Your task to perform on an android device: read, delete, or share a saved page in the chrome app Image 0: 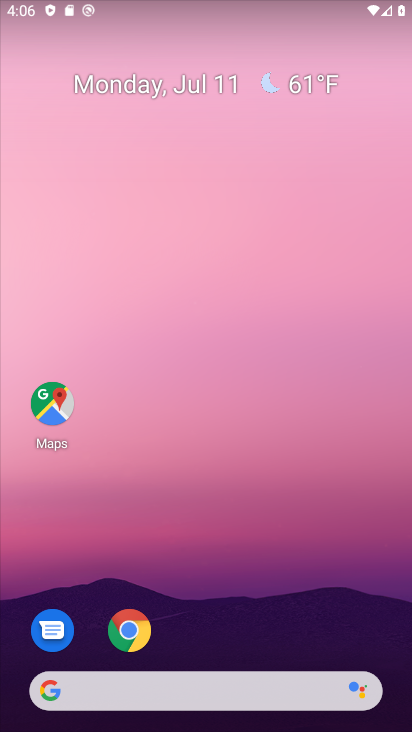
Step 0: drag from (290, 561) to (355, 0)
Your task to perform on an android device: read, delete, or share a saved page in the chrome app Image 1: 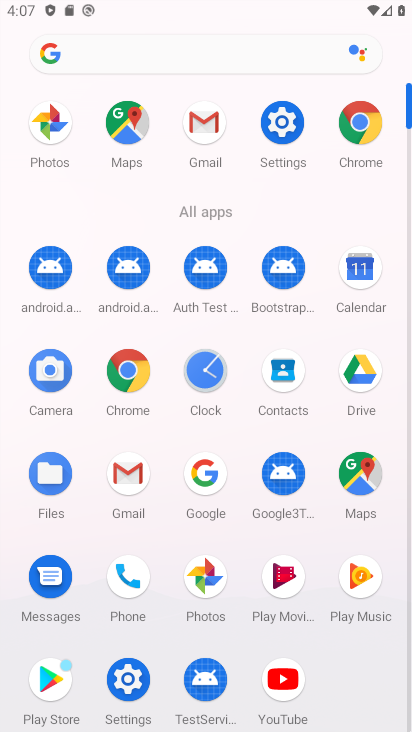
Step 1: click (365, 127)
Your task to perform on an android device: read, delete, or share a saved page in the chrome app Image 2: 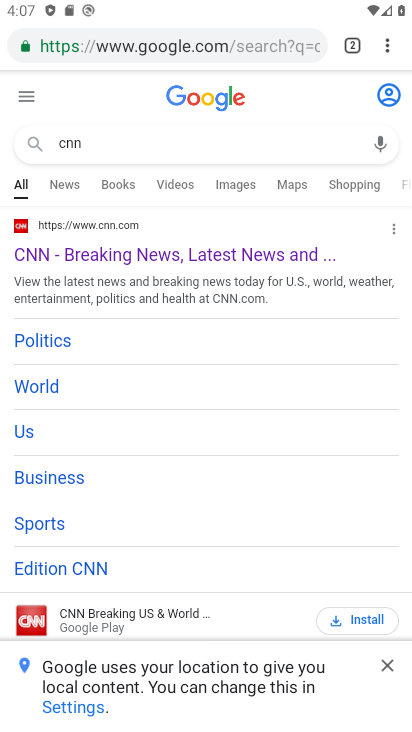
Step 2: task complete